Your task to perform on an android device: Open maps Image 0: 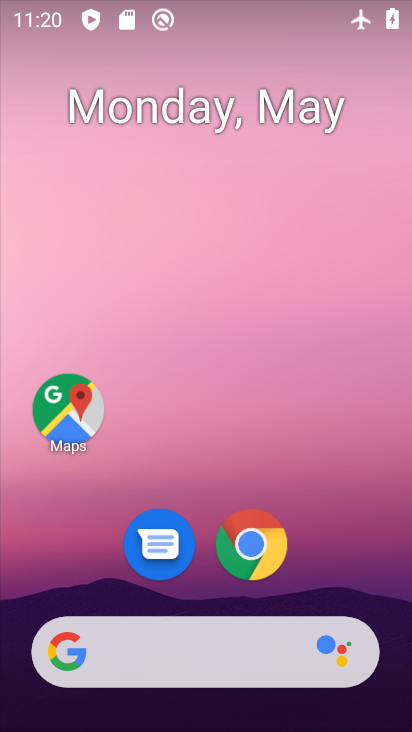
Step 0: drag from (364, 568) to (318, 79)
Your task to perform on an android device: Open maps Image 1: 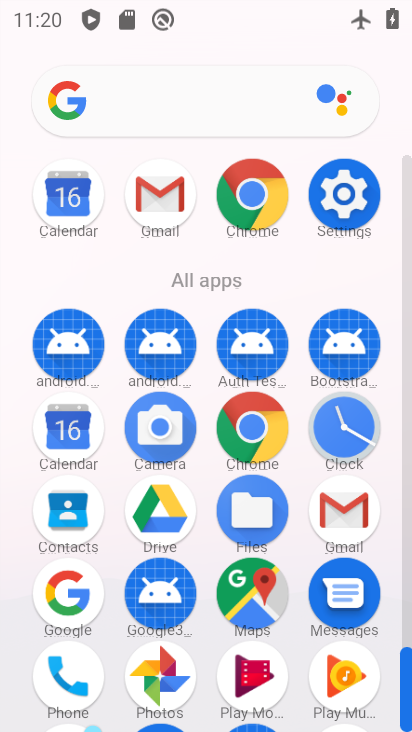
Step 1: click (235, 611)
Your task to perform on an android device: Open maps Image 2: 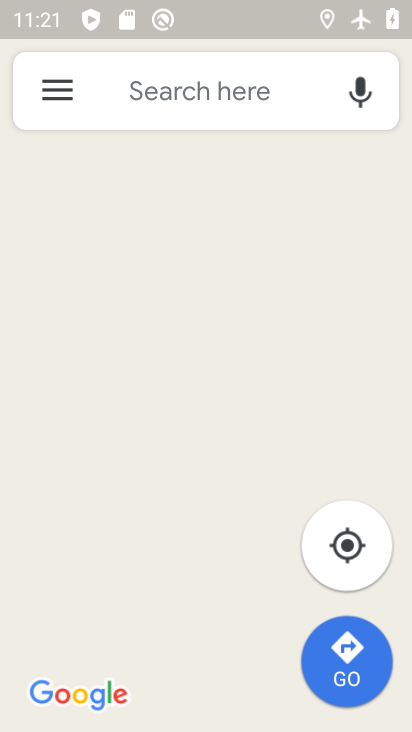
Step 2: task complete